Your task to perform on an android device: Open Google Maps Image 0: 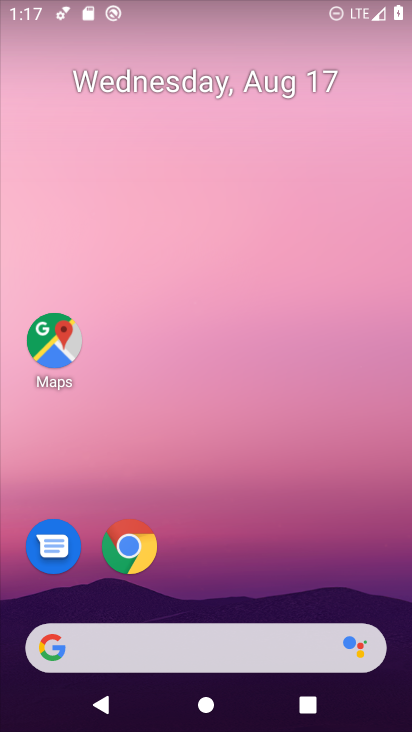
Step 0: click (56, 341)
Your task to perform on an android device: Open Google Maps Image 1: 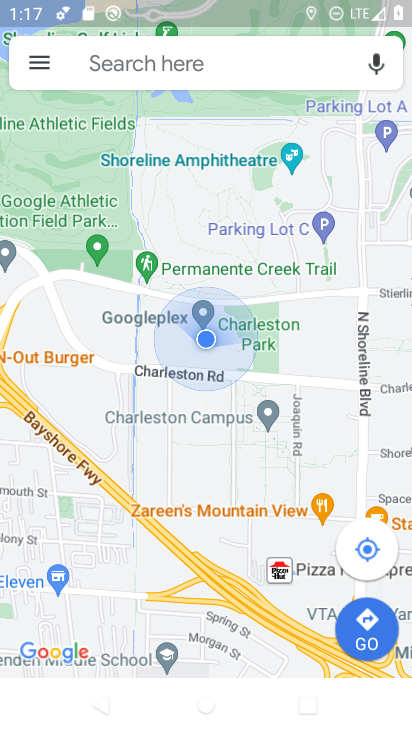
Step 1: task complete